Your task to perform on an android device: toggle pop-ups in chrome Image 0: 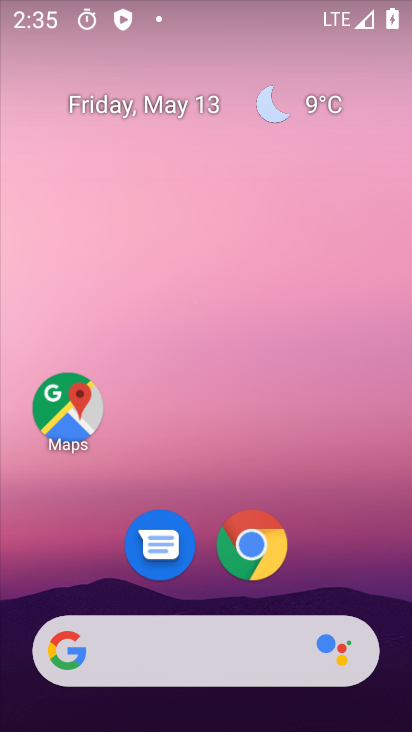
Step 0: click (258, 541)
Your task to perform on an android device: toggle pop-ups in chrome Image 1: 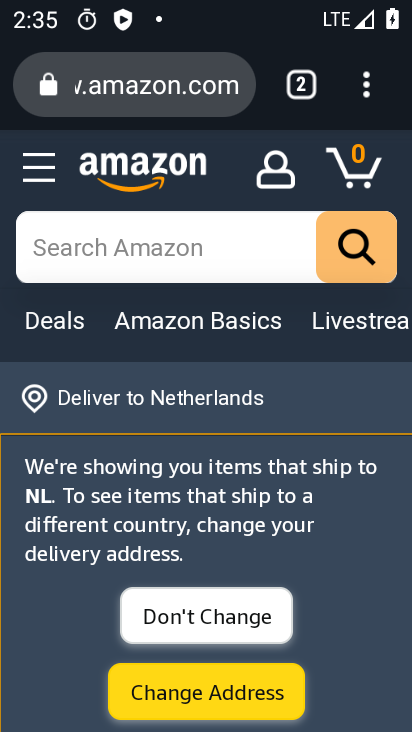
Step 1: drag from (361, 78) to (132, 598)
Your task to perform on an android device: toggle pop-ups in chrome Image 2: 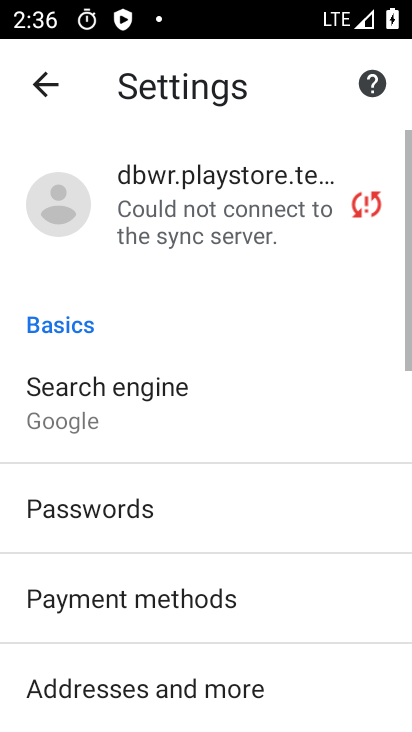
Step 2: drag from (314, 645) to (318, 276)
Your task to perform on an android device: toggle pop-ups in chrome Image 3: 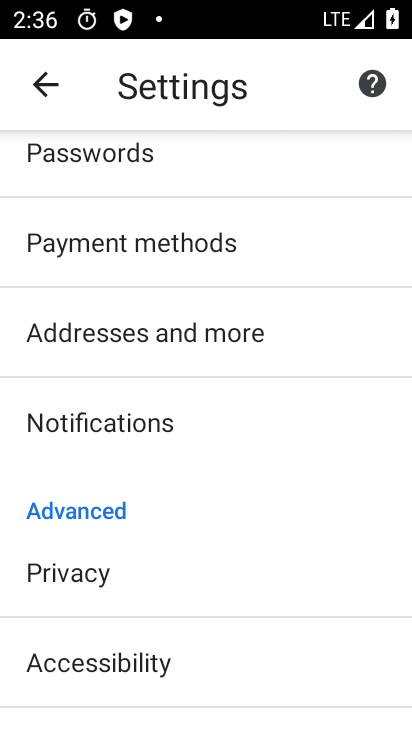
Step 3: drag from (258, 693) to (330, 331)
Your task to perform on an android device: toggle pop-ups in chrome Image 4: 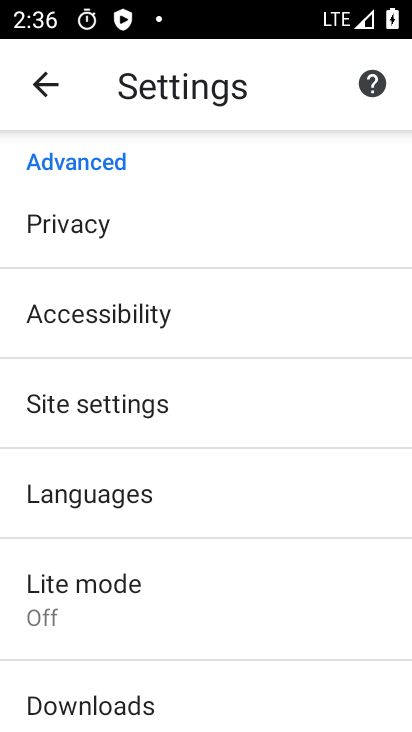
Step 4: click (64, 397)
Your task to perform on an android device: toggle pop-ups in chrome Image 5: 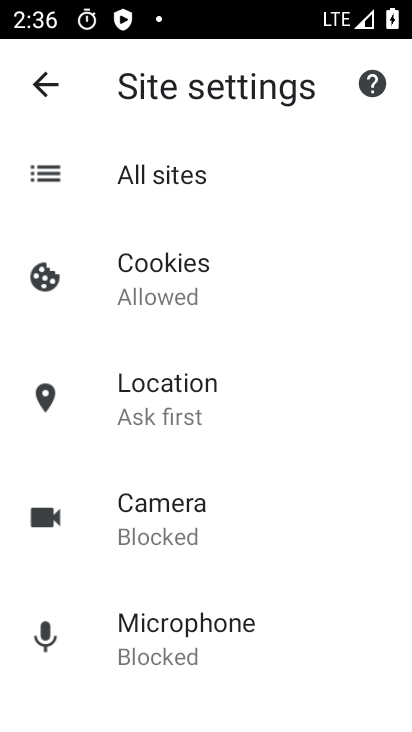
Step 5: drag from (282, 630) to (310, 273)
Your task to perform on an android device: toggle pop-ups in chrome Image 6: 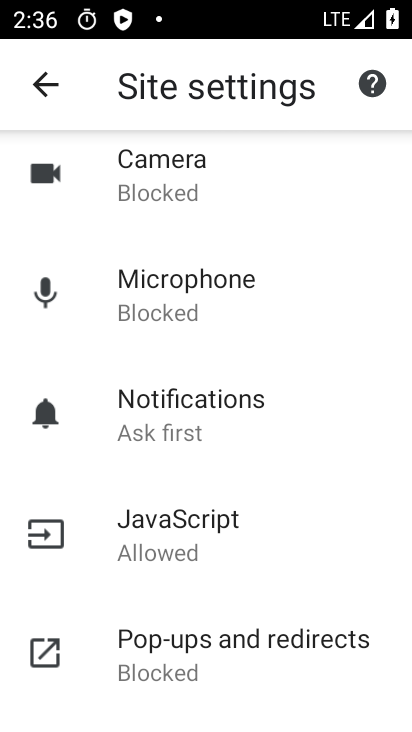
Step 6: click (210, 658)
Your task to perform on an android device: toggle pop-ups in chrome Image 7: 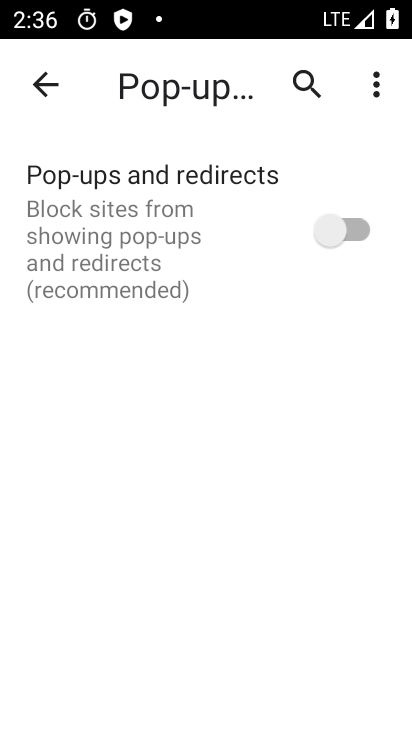
Step 7: click (349, 226)
Your task to perform on an android device: toggle pop-ups in chrome Image 8: 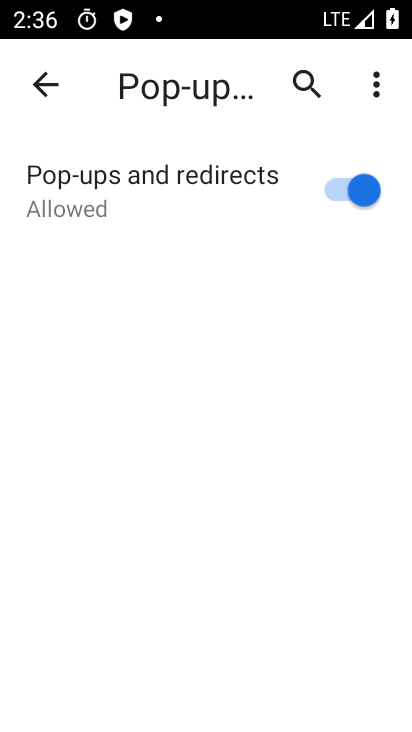
Step 8: task complete